Your task to perform on an android device: turn off javascript in the chrome app Image 0: 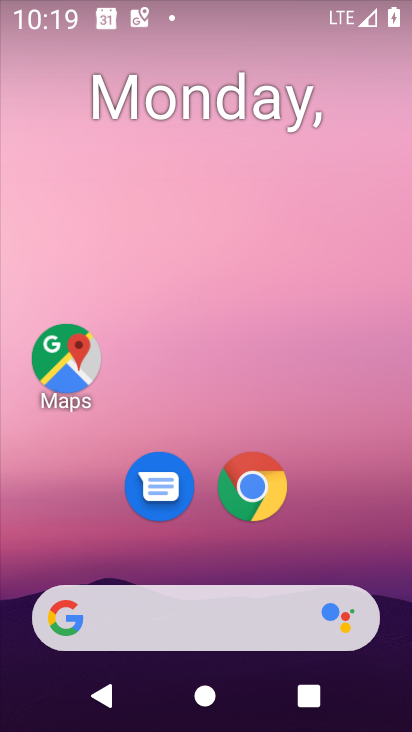
Step 0: drag from (373, 544) to (355, 39)
Your task to perform on an android device: turn off javascript in the chrome app Image 1: 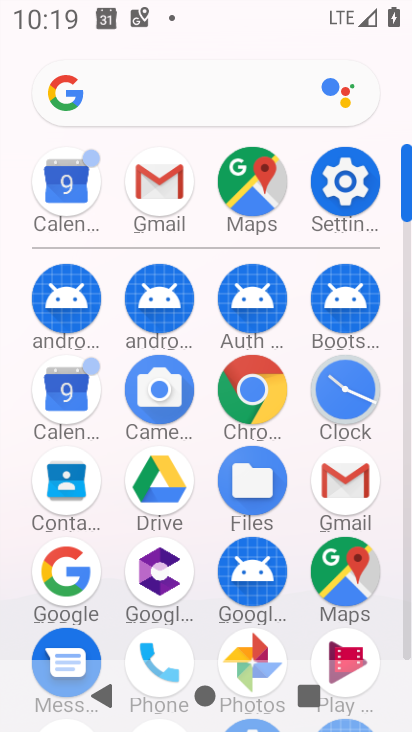
Step 1: drag from (4, 638) to (19, 234)
Your task to perform on an android device: turn off javascript in the chrome app Image 2: 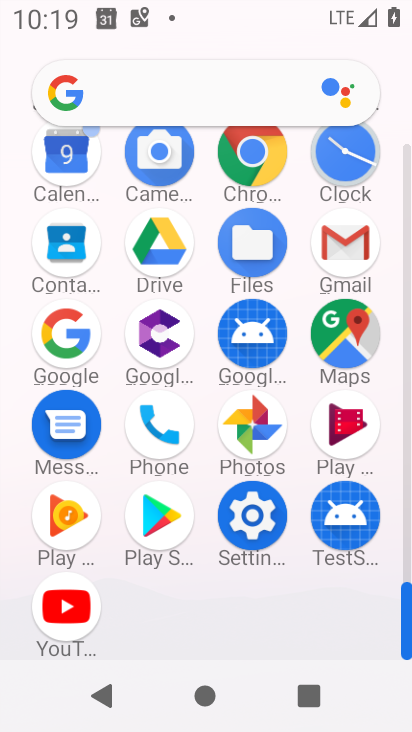
Step 2: click (246, 147)
Your task to perform on an android device: turn off javascript in the chrome app Image 3: 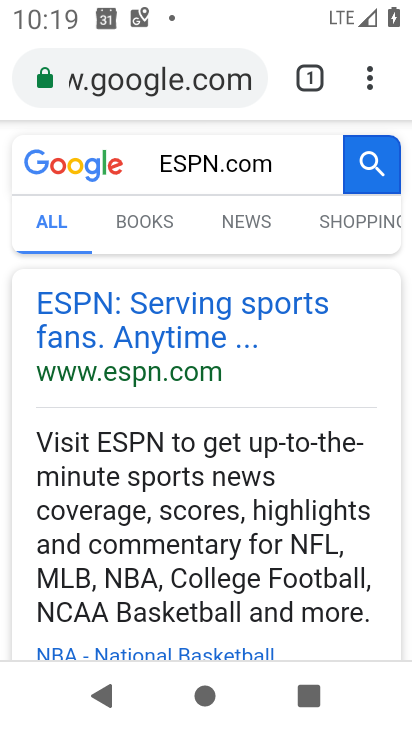
Step 3: drag from (371, 76) to (133, 537)
Your task to perform on an android device: turn off javascript in the chrome app Image 4: 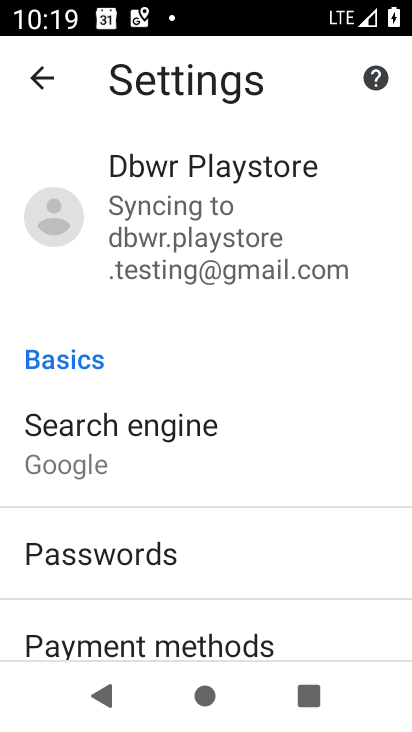
Step 4: drag from (256, 539) to (296, 167)
Your task to perform on an android device: turn off javascript in the chrome app Image 5: 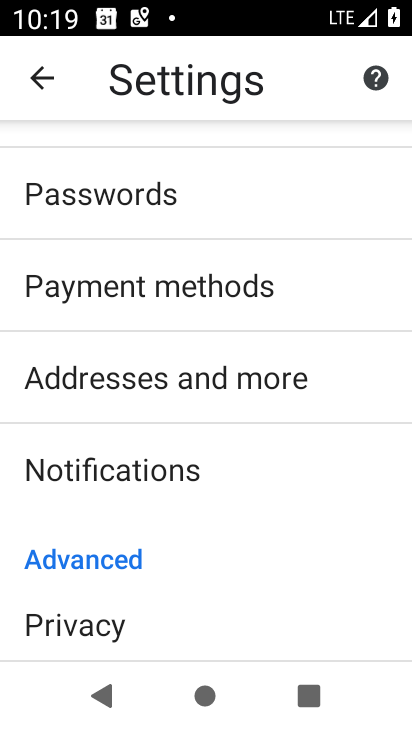
Step 5: drag from (279, 488) to (272, 184)
Your task to perform on an android device: turn off javascript in the chrome app Image 6: 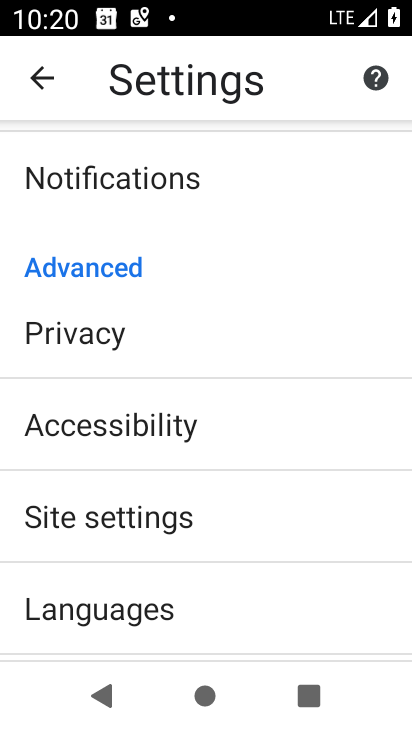
Step 6: drag from (253, 604) to (238, 260)
Your task to perform on an android device: turn off javascript in the chrome app Image 7: 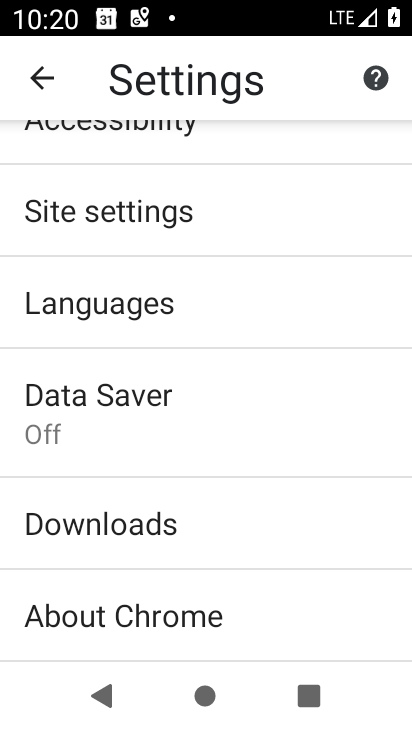
Step 7: click (192, 213)
Your task to perform on an android device: turn off javascript in the chrome app Image 8: 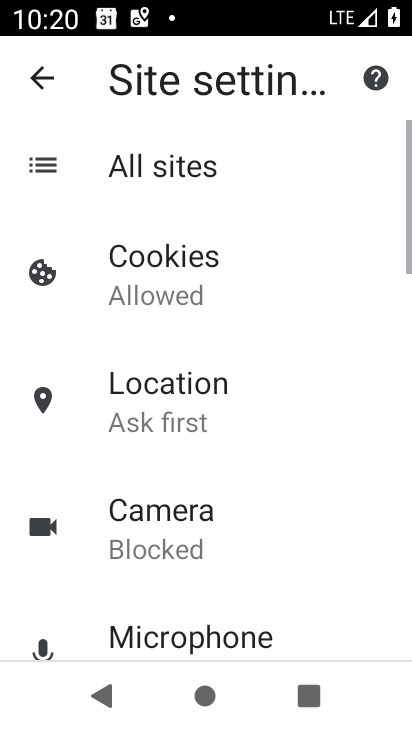
Step 8: drag from (265, 553) to (302, 118)
Your task to perform on an android device: turn off javascript in the chrome app Image 9: 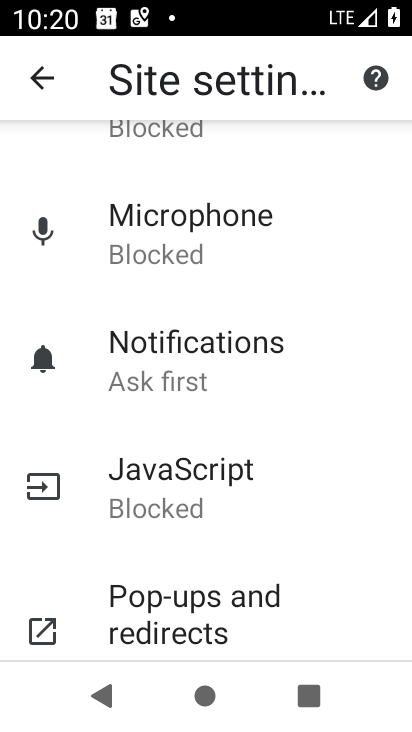
Step 9: drag from (296, 546) to (302, 195)
Your task to perform on an android device: turn off javascript in the chrome app Image 10: 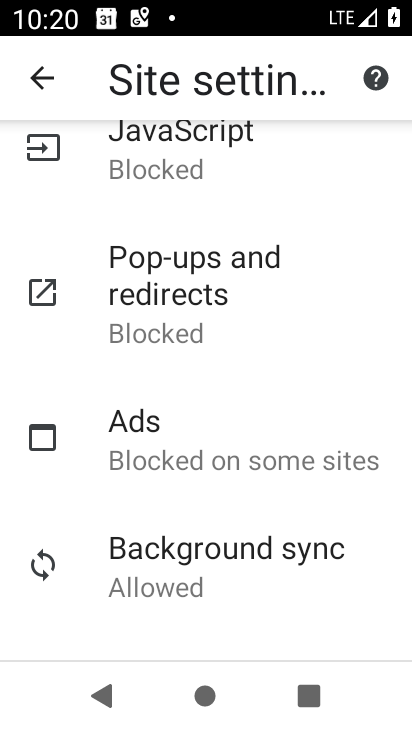
Step 10: click (239, 174)
Your task to perform on an android device: turn off javascript in the chrome app Image 11: 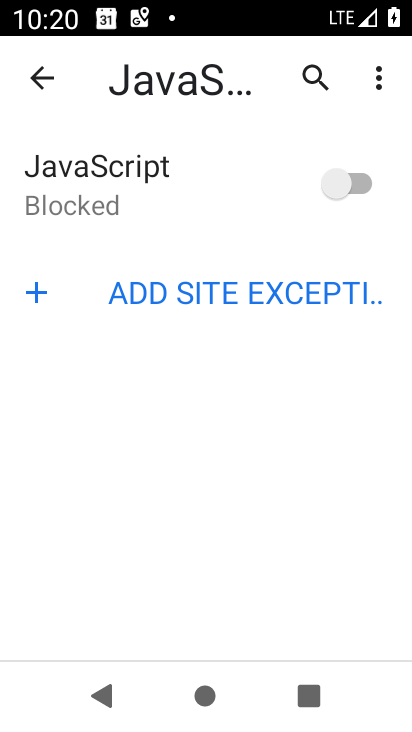
Step 11: task complete